Your task to perform on an android device: open app "Life360: Find Family & Friends" (install if not already installed) and enter user name: "gusts@gmail.com" and password: "assurers" Image 0: 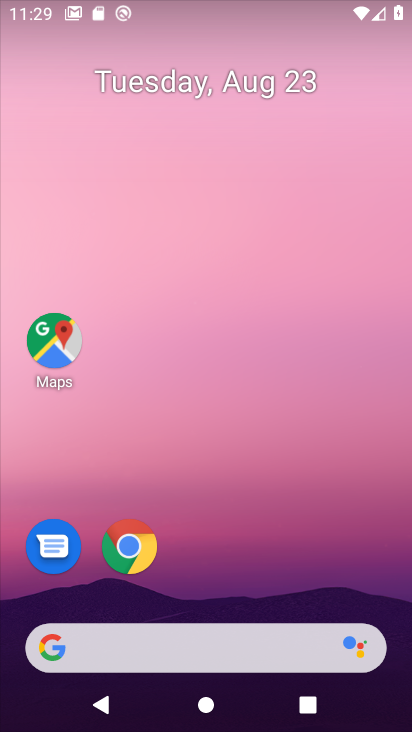
Step 0: press home button
Your task to perform on an android device: open app "Life360: Find Family & Friends" (install if not already installed) and enter user name: "gusts@gmail.com" and password: "assurers" Image 1: 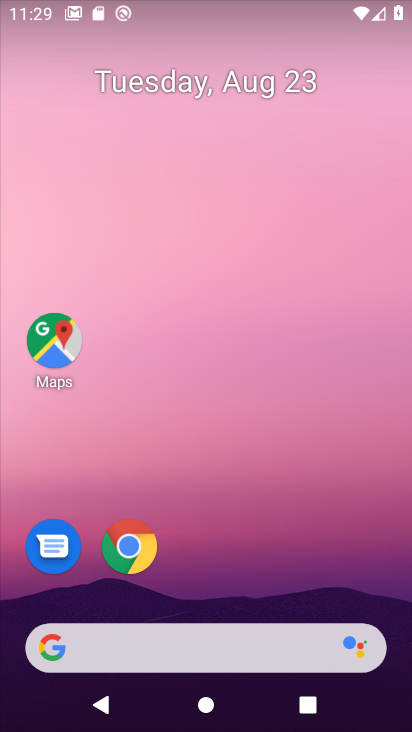
Step 1: drag from (206, 613) to (192, 173)
Your task to perform on an android device: open app "Life360: Find Family & Friends" (install if not already installed) and enter user name: "gusts@gmail.com" and password: "assurers" Image 2: 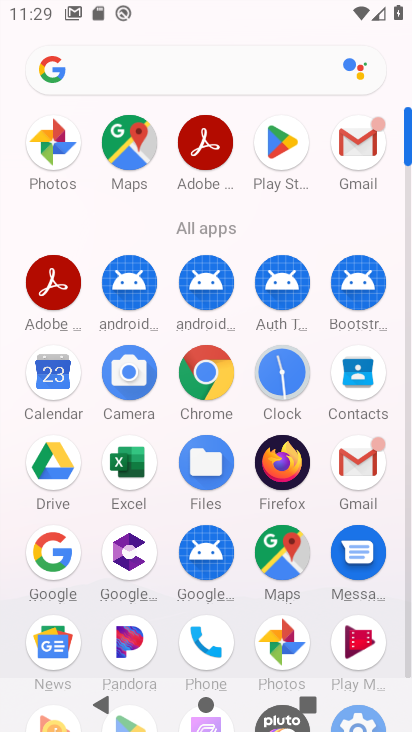
Step 2: click (284, 134)
Your task to perform on an android device: open app "Life360: Find Family & Friends" (install if not already installed) and enter user name: "gusts@gmail.com" and password: "assurers" Image 3: 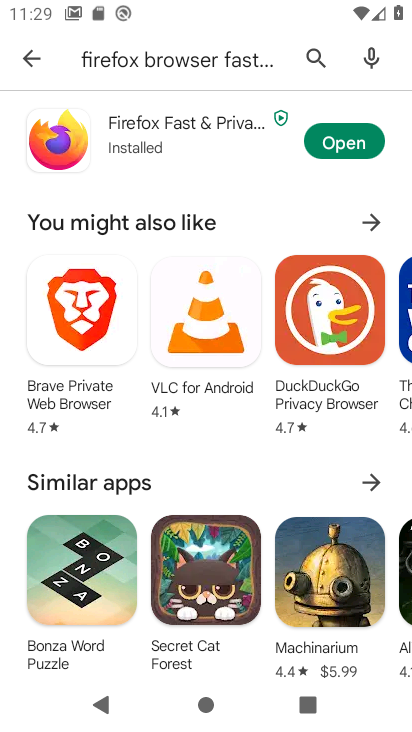
Step 3: click (23, 51)
Your task to perform on an android device: open app "Life360: Find Family & Friends" (install if not already installed) and enter user name: "gusts@gmail.com" and password: "assurers" Image 4: 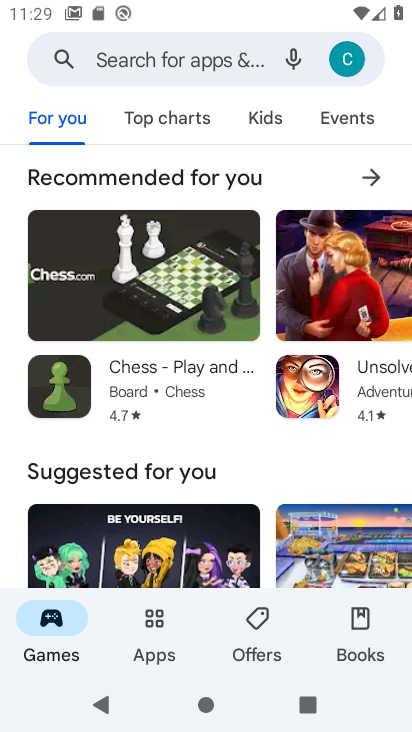
Step 4: click (136, 59)
Your task to perform on an android device: open app "Life360: Find Family & Friends" (install if not already installed) and enter user name: "gusts@gmail.com" and password: "assurers" Image 5: 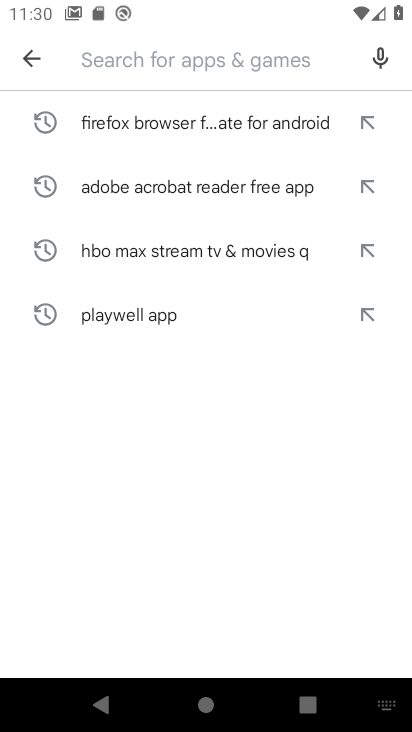
Step 5: type "Life360: Find Family & Friends "
Your task to perform on an android device: open app "Life360: Find Family & Friends" (install if not already installed) and enter user name: "gusts@gmail.com" and password: "assurers" Image 6: 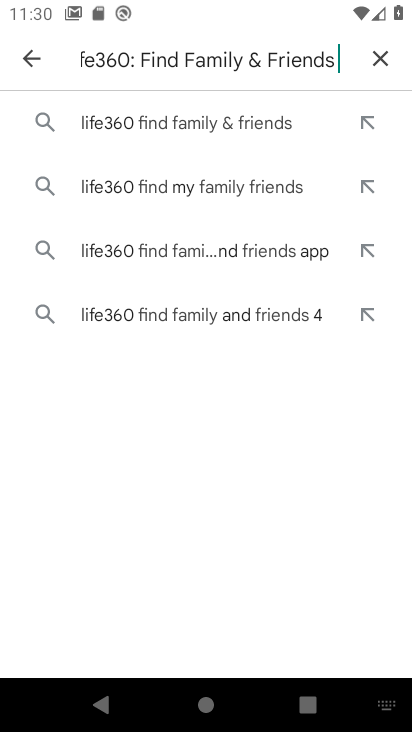
Step 6: click (133, 131)
Your task to perform on an android device: open app "Life360: Find Family & Friends" (install if not already installed) and enter user name: "gusts@gmail.com" and password: "assurers" Image 7: 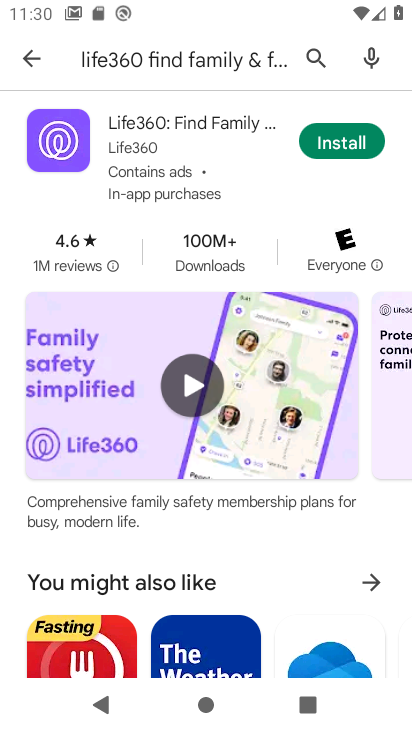
Step 7: click (342, 142)
Your task to perform on an android device: open app "Life360: Find Family & Friends" (install if not already installed) and enter user name: "gusts@gmail.com" and password: "assurers" Image 8: 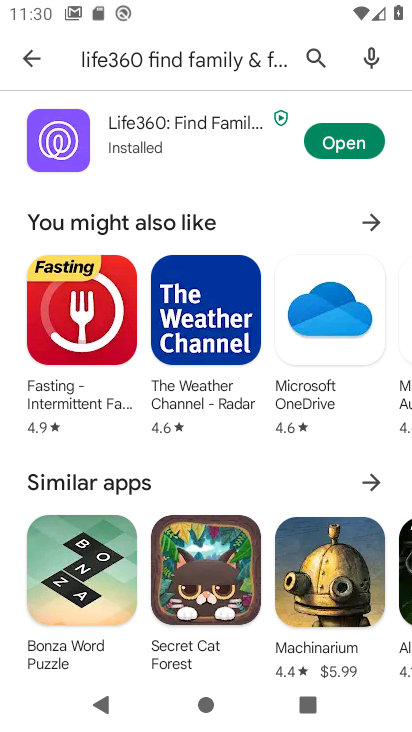
Step 8: task complete